Your task to perform on an android device: Go to Amazon Image 0: 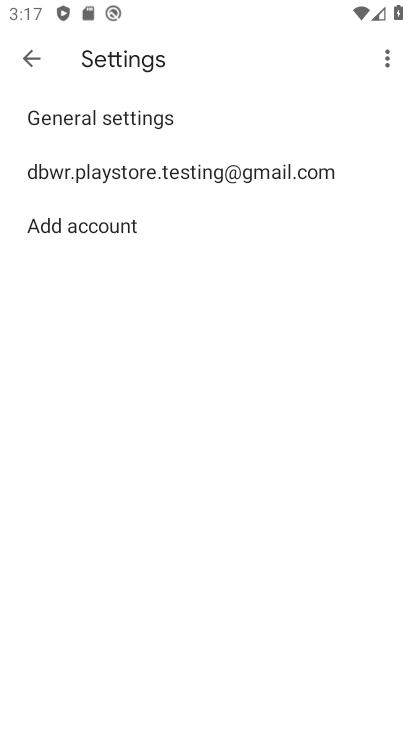
Step 0: press home button
Your task to perform on an android device: Go to Amazon Image 1: 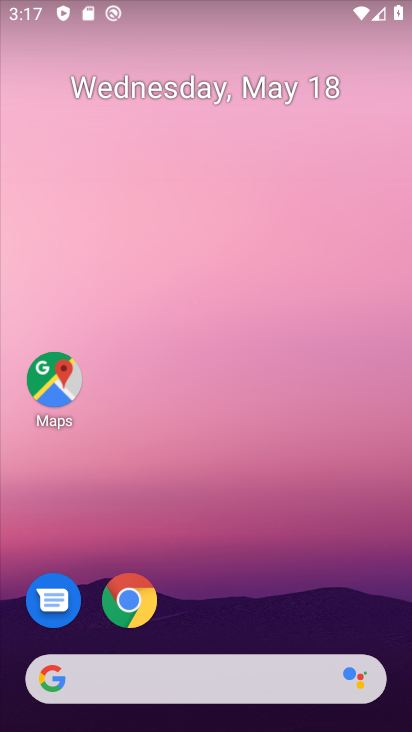
Step 1: click (135, 602)
Your task to perform on an android device: Go to Amazon Image 2: 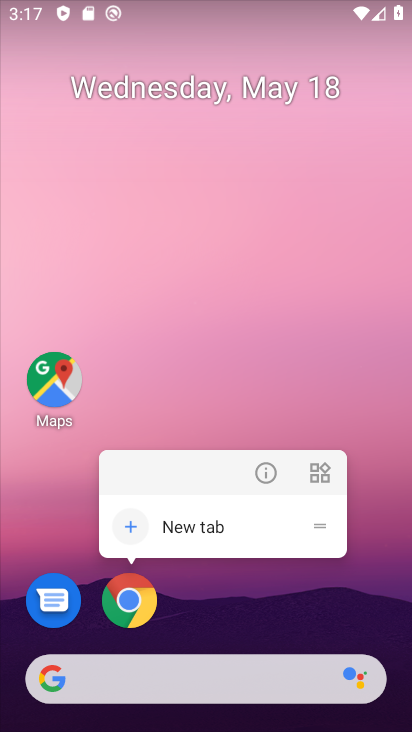
Step 2: click (265, 467)
Your task to perform on an android device: Go to Amazon Image 3: 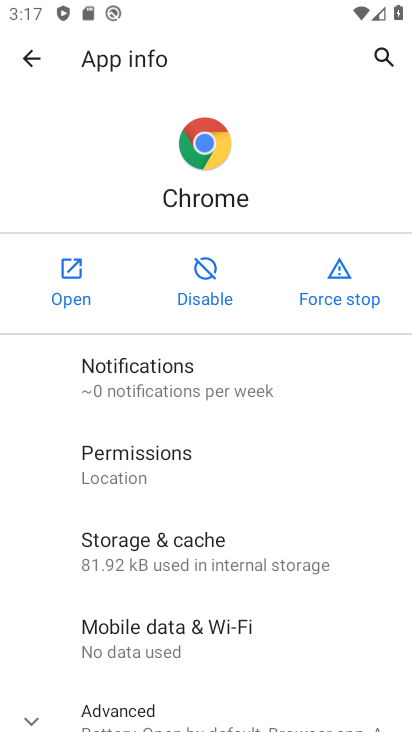
Step 3: click (63, 273)
Your task to perform on an android device: Go to Amazon Image 4: 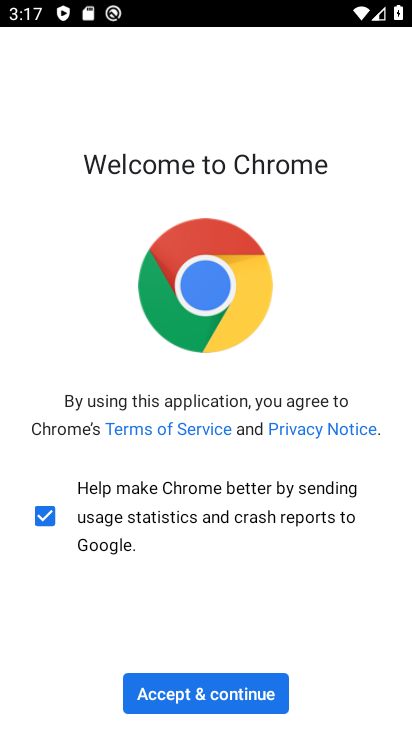
Step 4: click (224, 705)
Your task to perform on an android device: Go to Amazon Image 5: 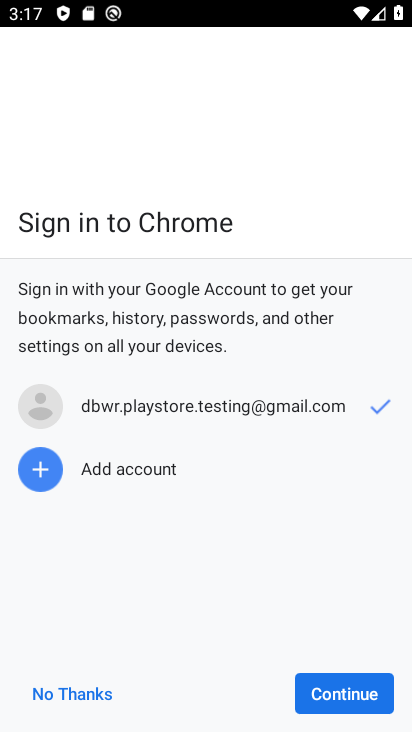
Step 5: click (351, 694)
Your task to perform on an android device: Go to Amazon Image 6: 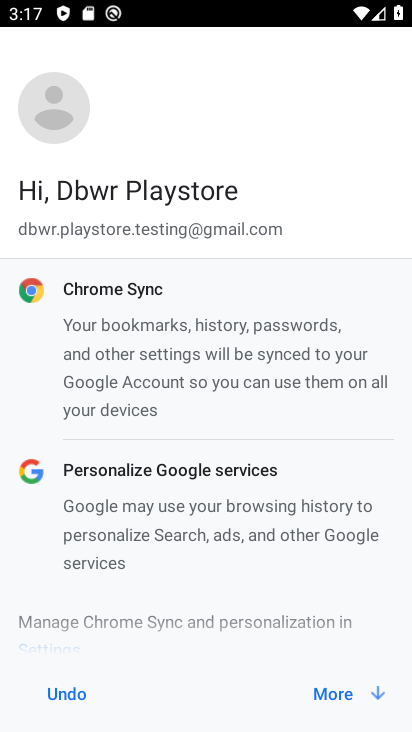
Step 6: click (350, 697)
Your task to perform on an android device: Go to Amazon Image 7: 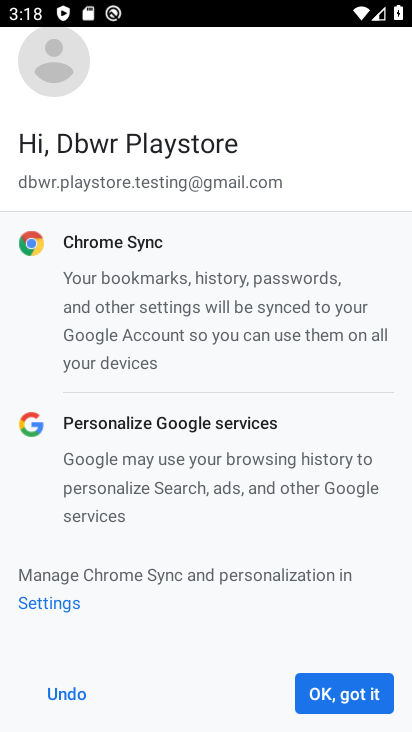
Step 7: click (350, 696)
Your task to perform on an android device: Go to Amazon Image 8: 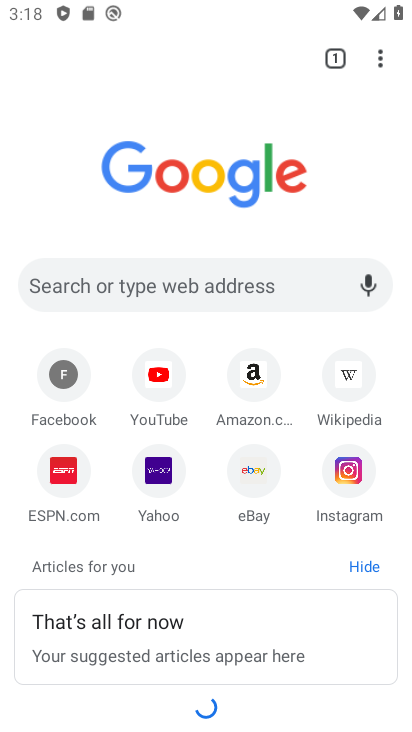
Step 8: click (151, 301)
Your task to perform on an android device: Go to Amazon Image 9: 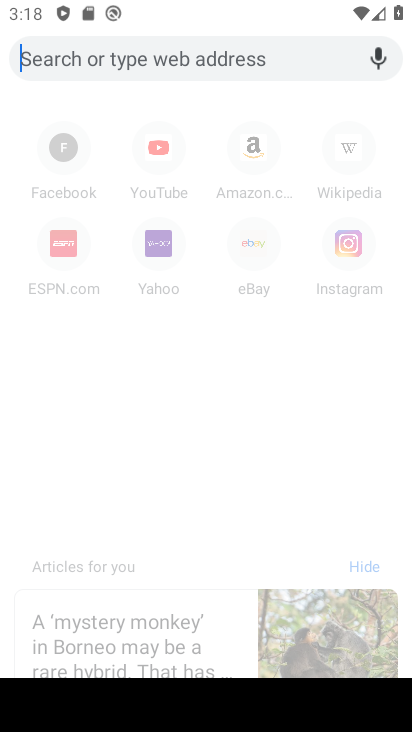
Step 9: type "Amazon"
Your task to perform on an android device: Go to Amazon Image 10: 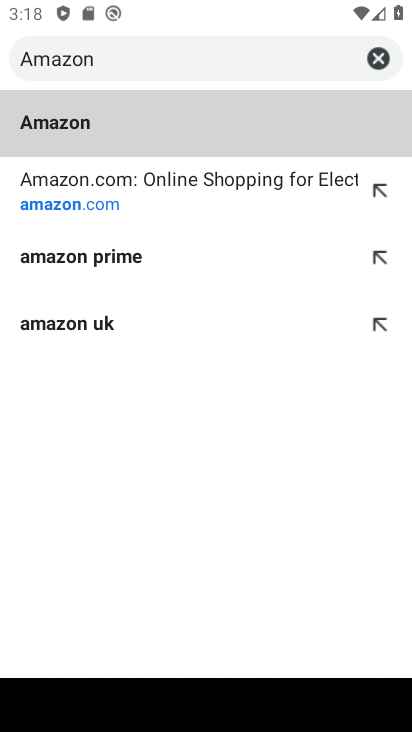
Step 10: click (63, 123)
Your task to perform on an android device: Go to Amazon Image 11: 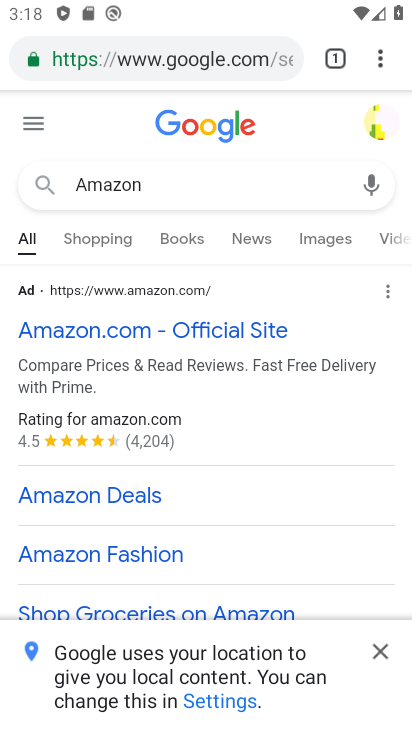
Step 11: task complete